Your task to perform on an android device: Search for Italian restaurants on Maps Image 0: 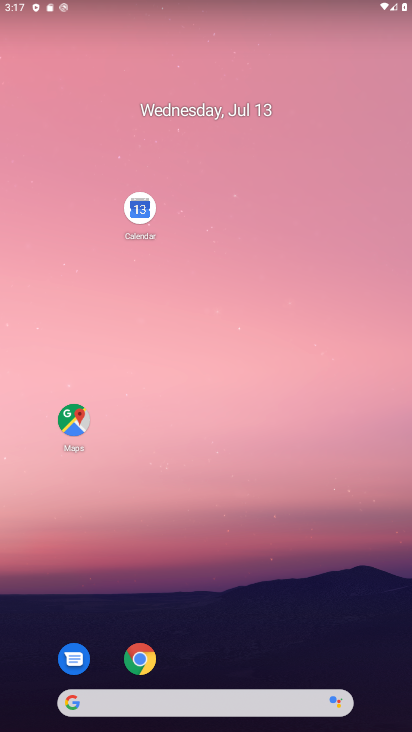
Step 0: click (68, 429)
Your task to perform on an android device: Search for Italian restaurants on Maps Image 1: 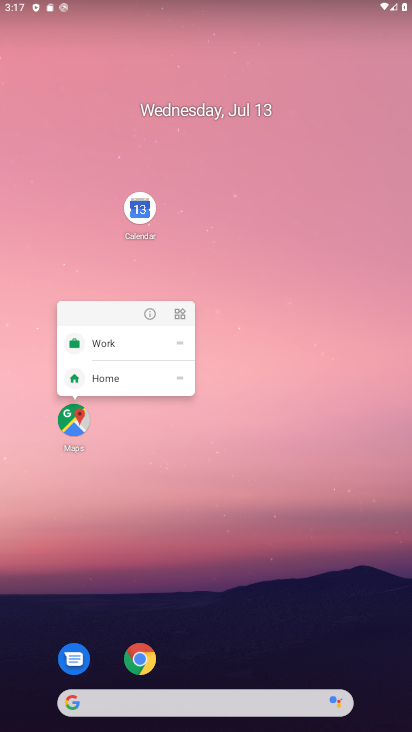
Step 1: click (74, 430)
Your task to perform on an android device: Search for Italian restaurants on Maps Image 2: 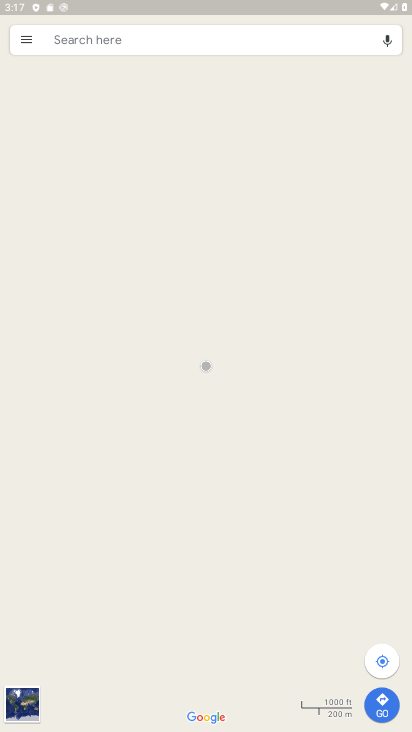
Step 2: click (108, 36)
Your task to perform on an android device: Search for Italian restaurants on Maps Image 3: 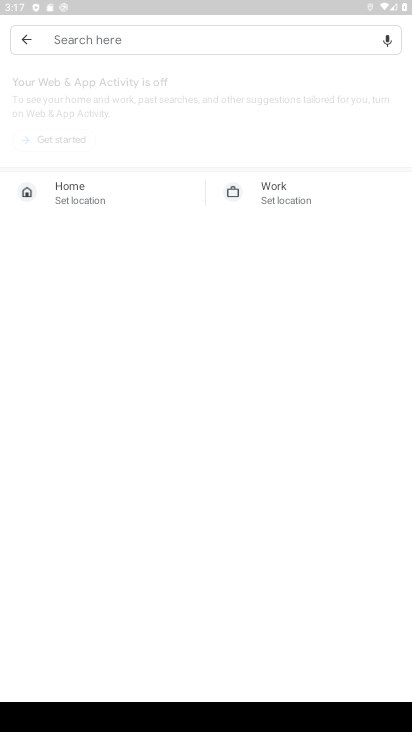
Step 3: click (204, 34)
Your task to perform on an android device: Search for Italian restaurants on Maps Image 4: 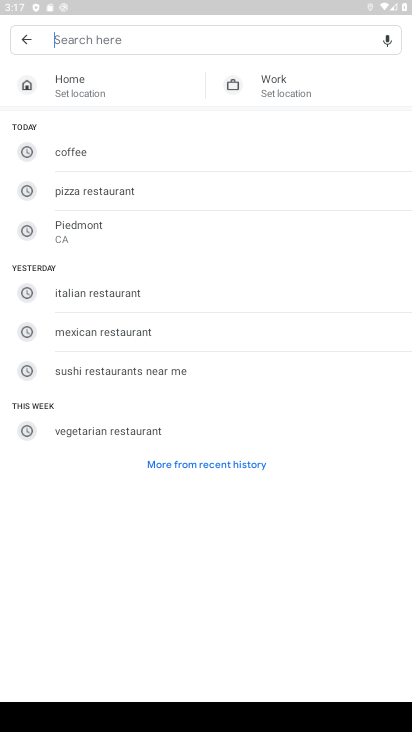
Step 4: click (97, 292)
Your task to perform on an android device: Search for Italian restaurants on Maps Image 5: 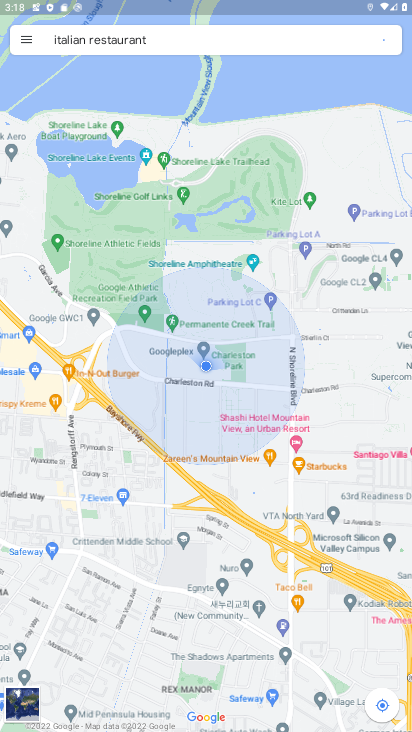
Step 5: task complete